Your task to perform on an android device: Open Maps and search for coffee Image 0: 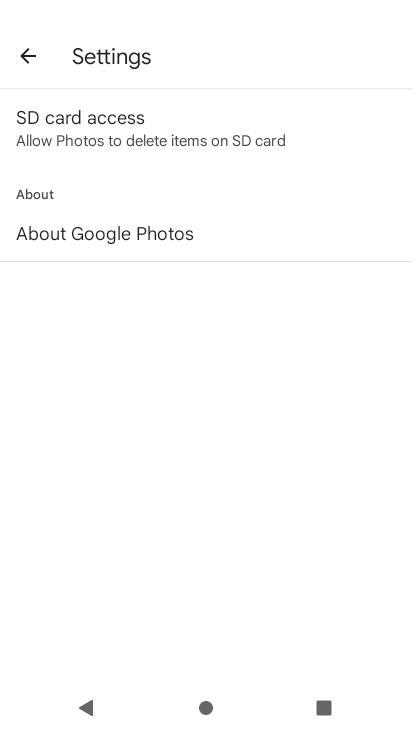
Step 0: press home button
Your task to perform on an android device: Open Maps and search for coffee Image 1: 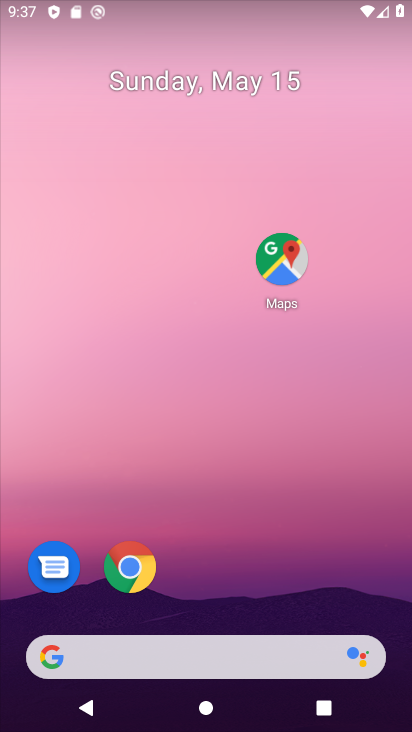
Step 1: click (280, 265)
Your task to perform on an android device: Open Maps and search for coffee Image 2: 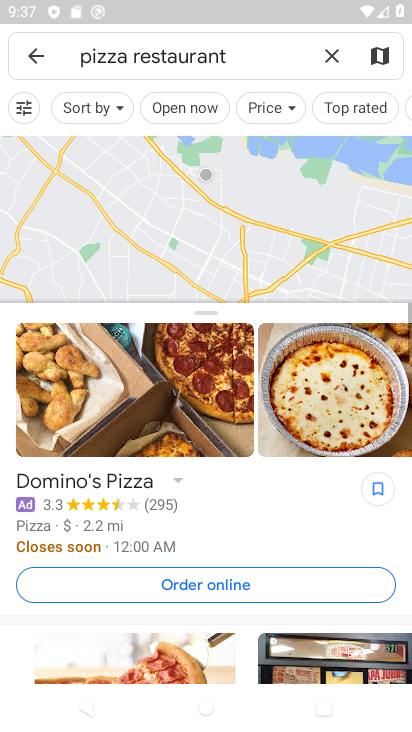
Step 2: click (328, 52)
Your task to perform on an android device: Open Maps and search for coffee Image 3: 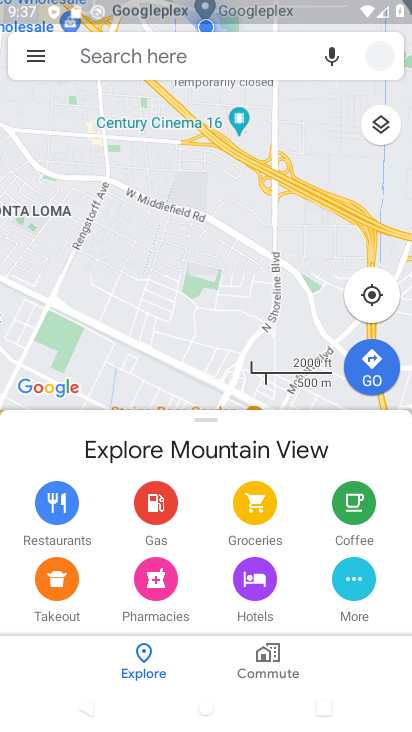
Step 3: click (184, 65)
Your task to perform on an android device: Open Maps and search for coffee Image 4: 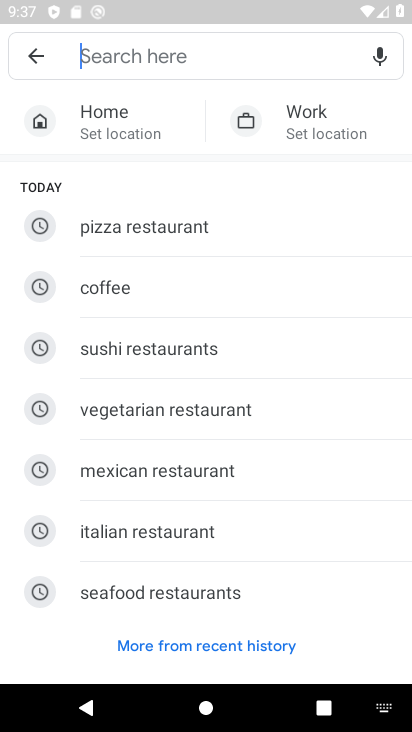
Step 4: click (176, 292)
Your task to perform on an android device: Open Maps and search for coffee Image 5: 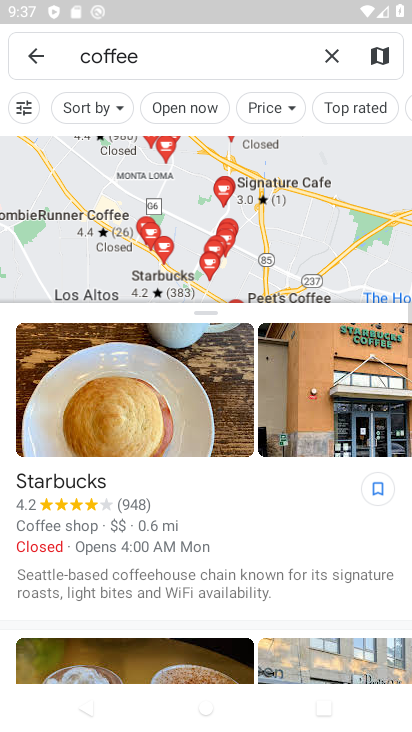
Step 5: task complete